Your task to perform on an android device: Open Google Image 0: 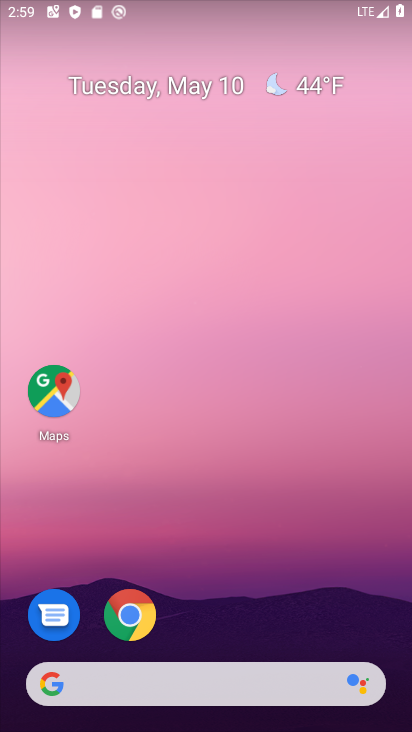
Step 0: press home button
Your task to perform on an android device: Open Google Image 1: 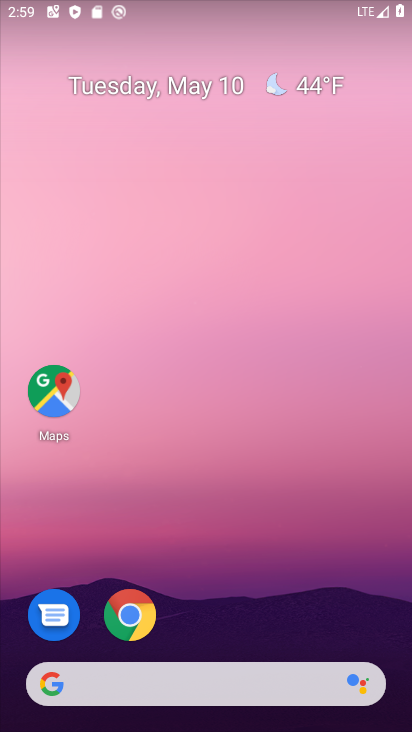
Step 1: drag from (221, 628) to (266, 49)
Your task to perform on an android device: Open Google Image 2: 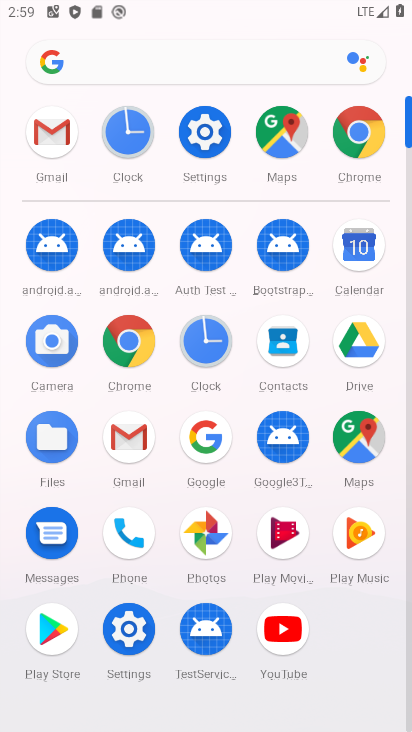
Step 2: click (200, 436)
Your task to perform on an android device: Open Google Image 3: 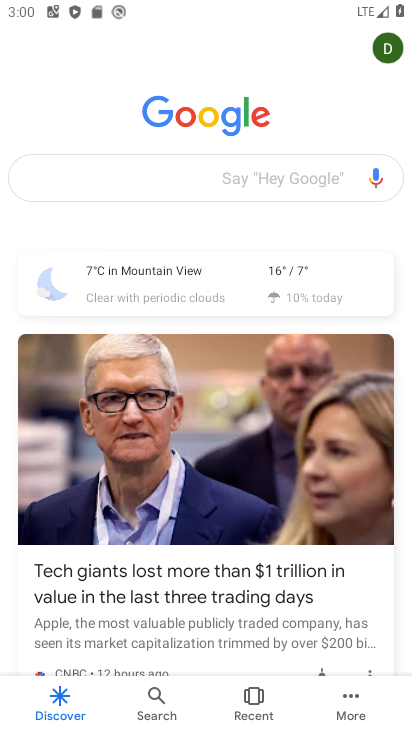
Step 3: task complete